Your task to perform on an android device: move an email to a new category in the gmail app Image 0: 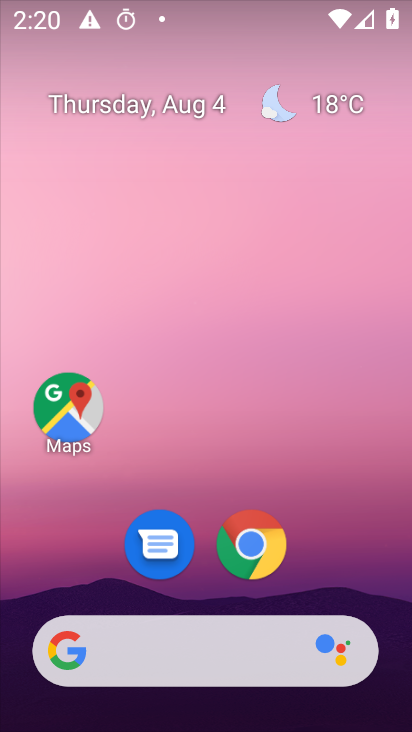
Step 0: drag from (373, 651) to (348, 157)
Your task to perform on an android device: move an email to a new category in the gmail app Image 1: 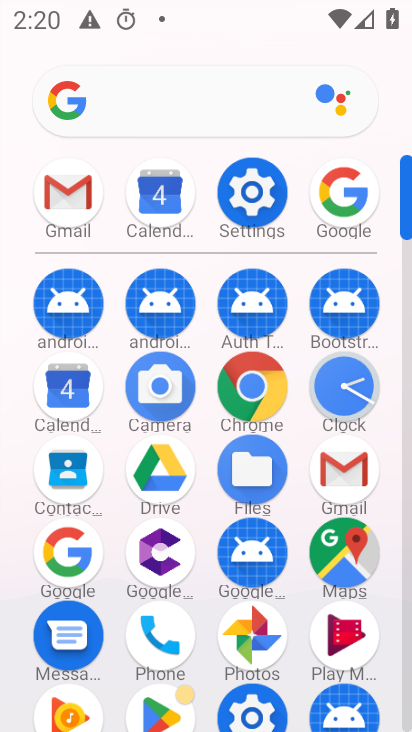
Step 1: click (333, 465)
Your task to perform on an android device: move an email to a new category in the gmail app Image 2: 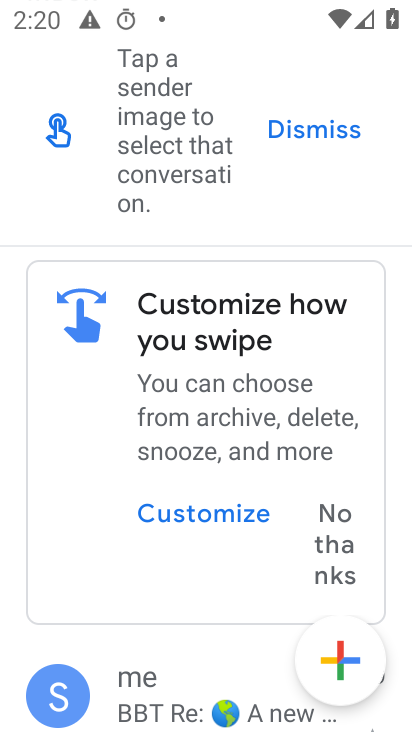
Step 2: drag from (227, 529) to (250, 250)
Your task to perform on an android device: move an email to a new category in the gmail app Image 3: 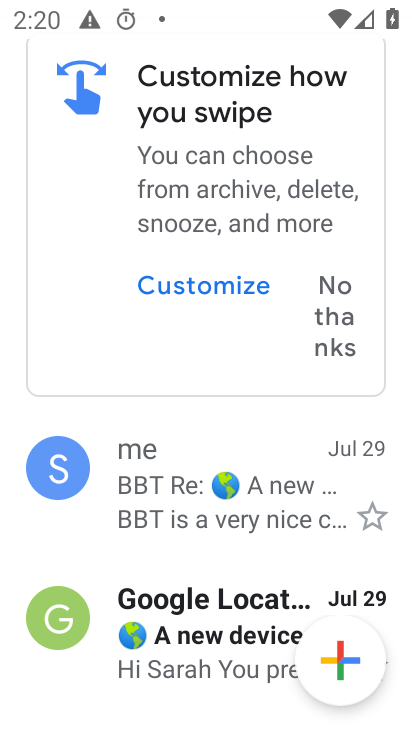
Step 3: click (364, 520)
Your task to perform on an android device: move an email to a new category in the gmail app Image 4: 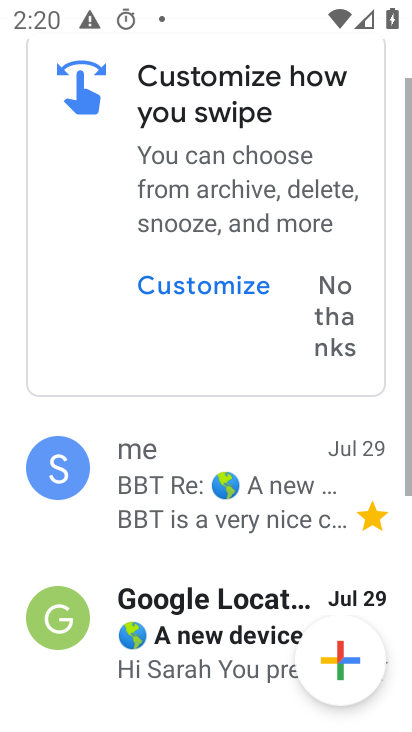
Step 4: task complete